Your task to perform on an android device: Open wifi settings Image 0: 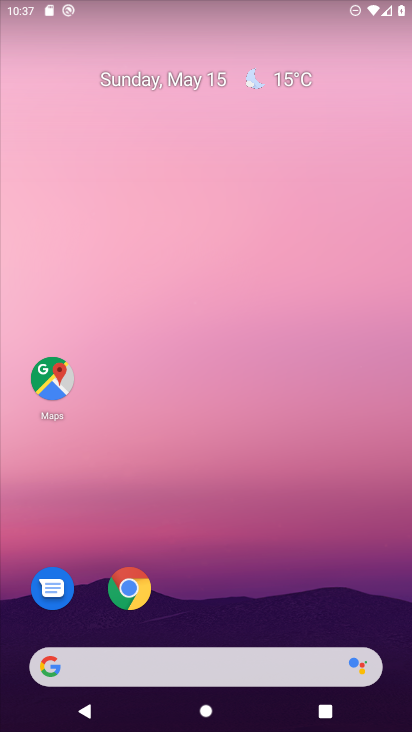
Step 0: drag from (244, 606) to (323, 33)
Your task to perform on an android device: Open wifi settings Image 1: 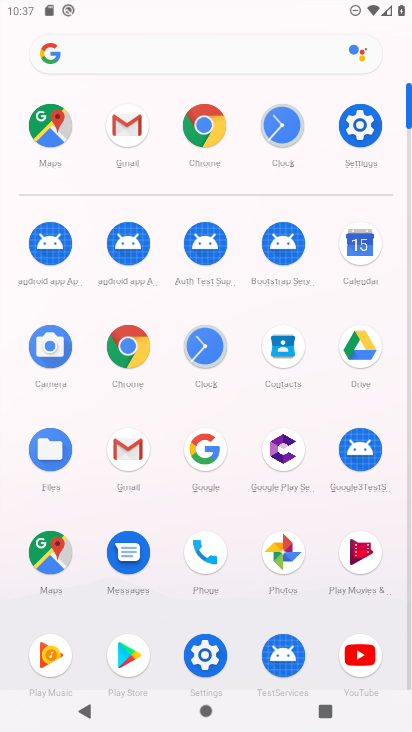
Step 1: click (366, 147)
Your task to perform on an android device: Open wifi settings Image 2: 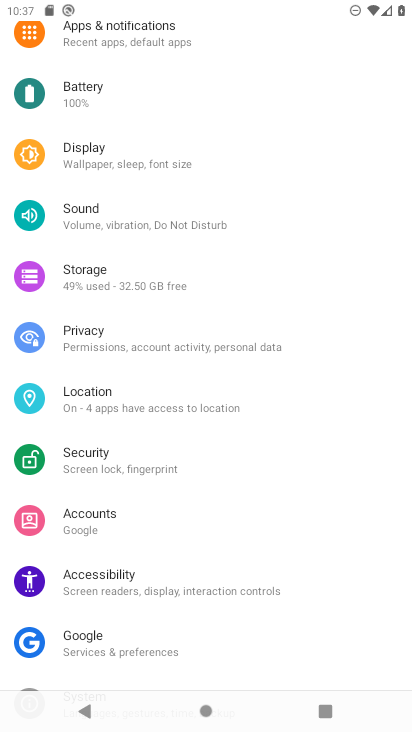
Step 2: drag from (226, 186) to (192, 434)
Your task to perform on an android device: Open wifi settings Image 3: 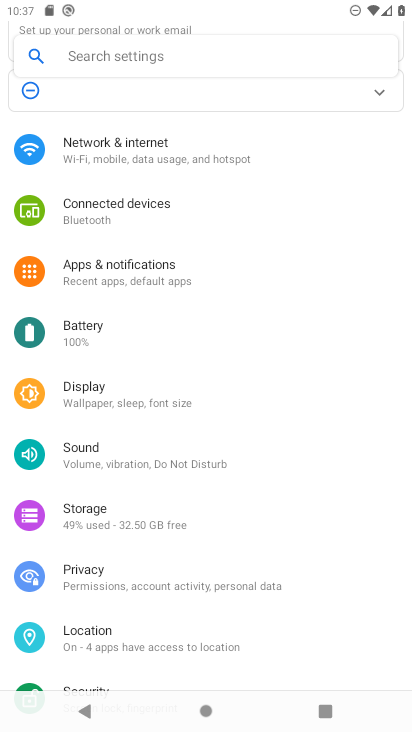
Step 3: click (152, 154)
Your task to perform on an android device: Open wifi settings Image 4: 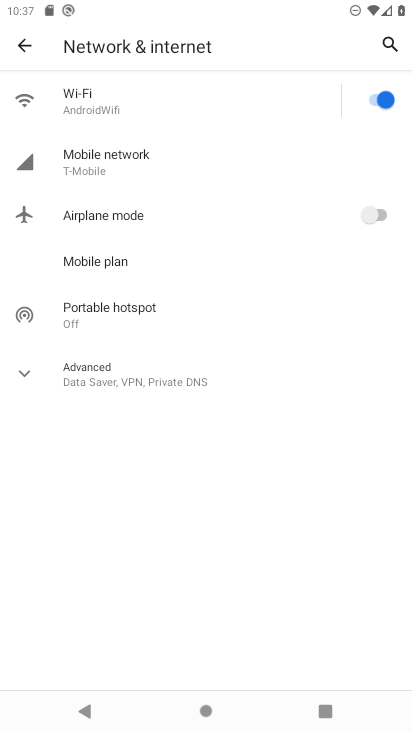
Step 4: click (152, 99)
Your task to perform on an android device: Open wifi settings Image 5: 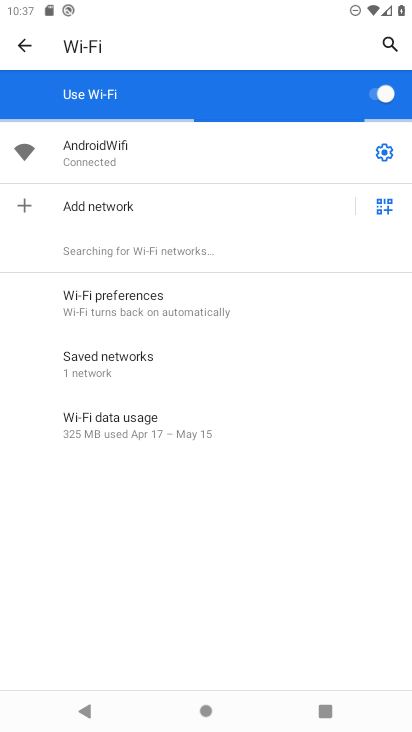
Step 5: task complete